Your task to perform on an android device: Find coffee shops on Maps Image 0: 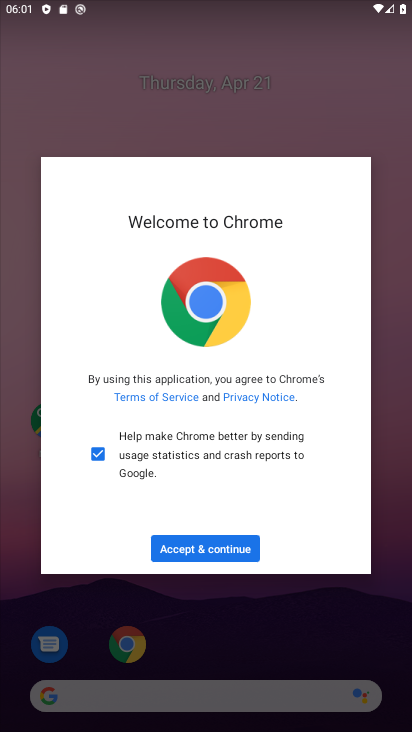
Step 0: click (181, 553)
Your task to perform on an android device: Find coffee shops on Maps Image 1: 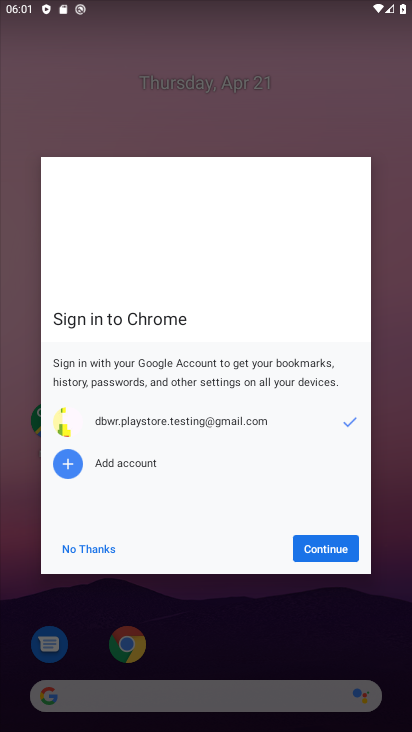
Step 1: click (320, 558)
Your task to perform on an android device: Find coffee shops on Maps Image 2: 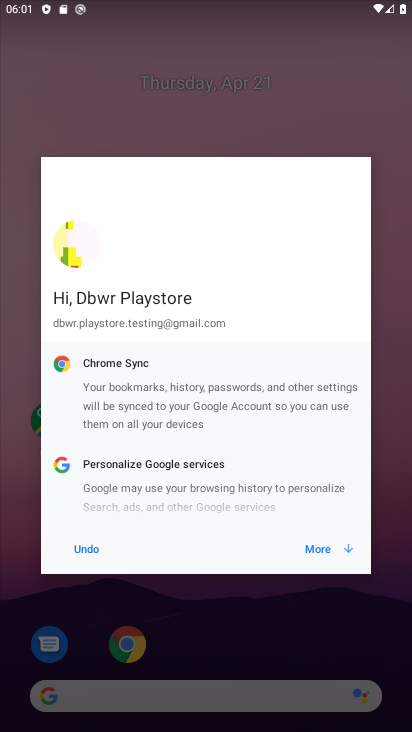
Step 2: press home button
Your task to perform on an android device: Find coffee shops on Maps Image 3: 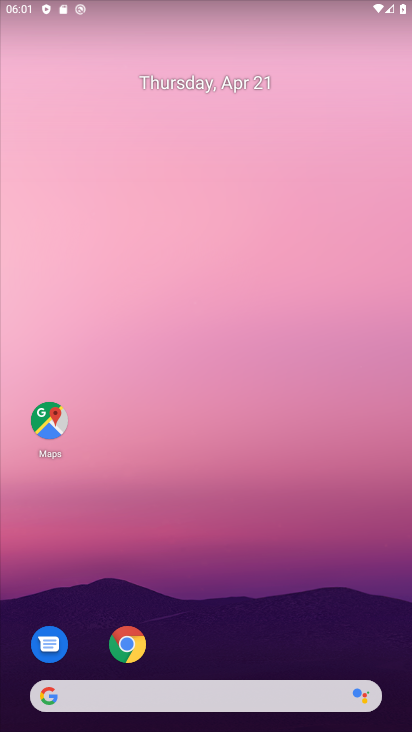
Step 3: press home button
Your task to perform on an android device: Find coffee shops on Maps Image 4: 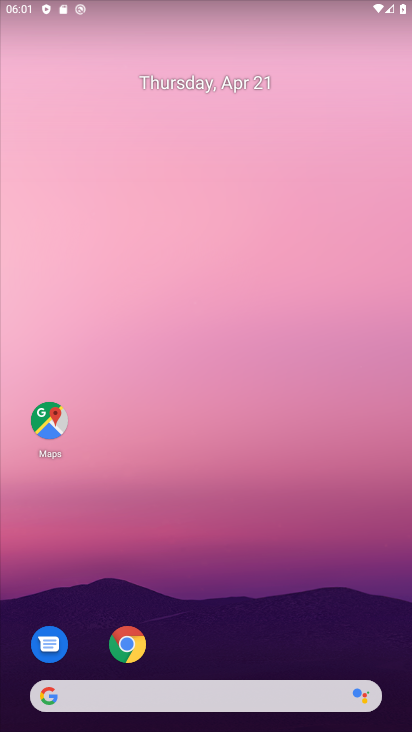
Step 4: press home button
Your task to perform on an android device: Find coffee shops on Maps Image 5: 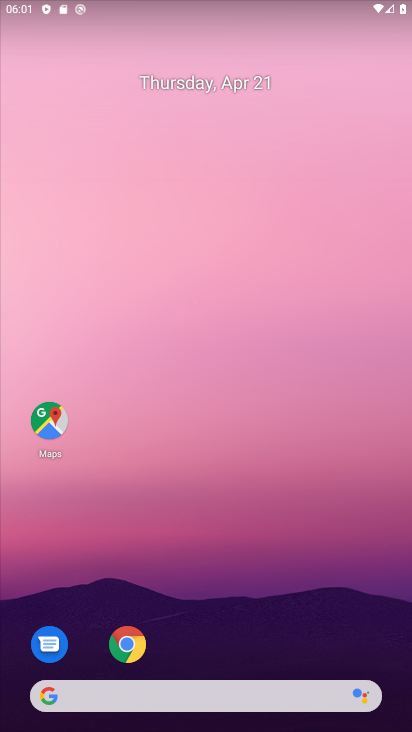
Step 5: click (42, 412)
Your task to perform on an android device: Find coffee shops on Maps Image 6: 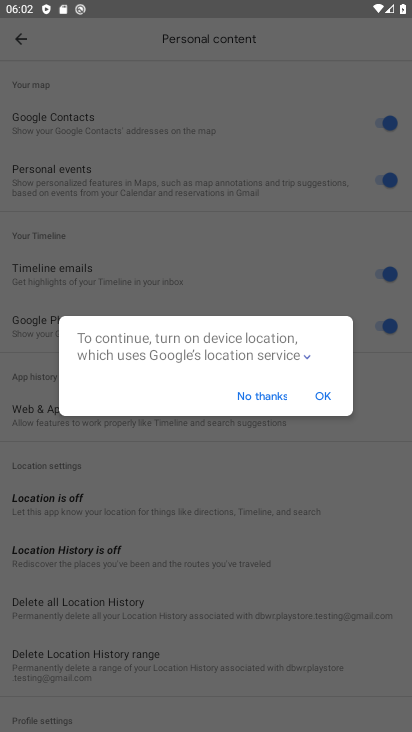
Step 6: click (269, 391)
Your task to perform on an android device: Find coffee shops on Maps Image 7: 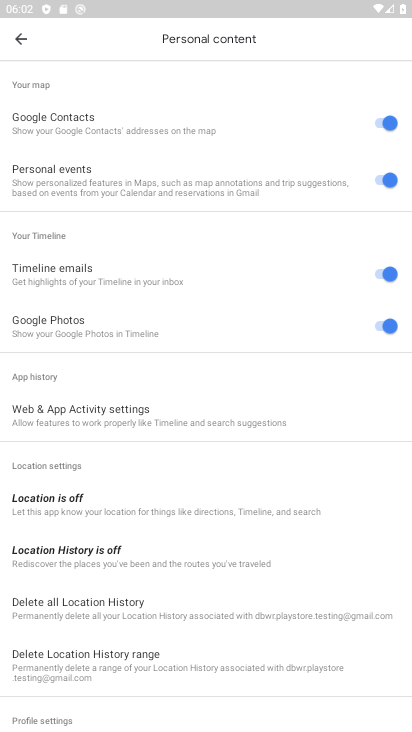
Step 7: click (24, 40)
Your task to perform on an android device: Find coffee shops on Maps Image 8: 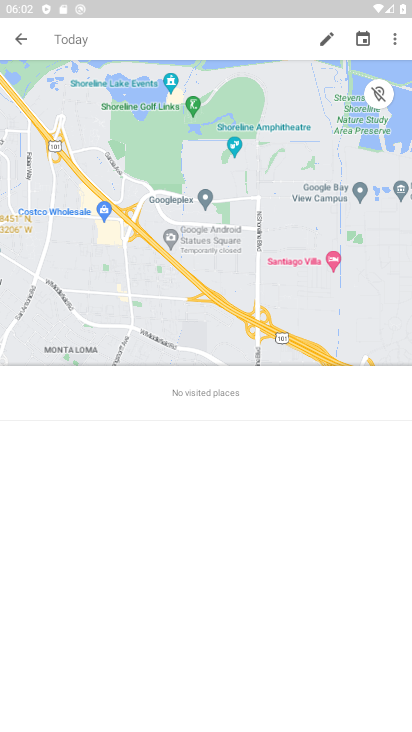
Step 8: click (17, 36)
Your task to perform on an android device: Find coffee shops on Maps Image 9: 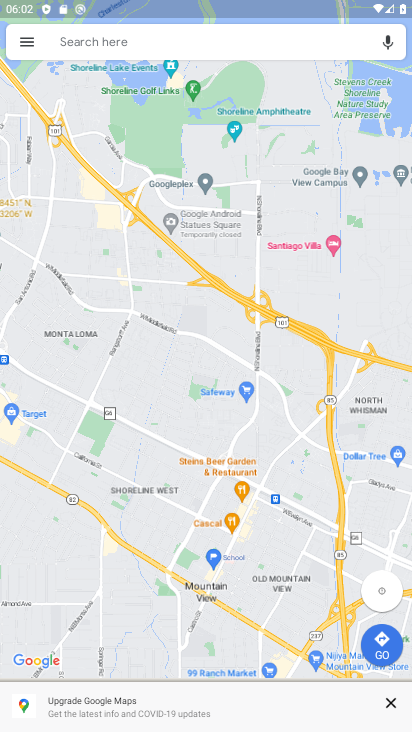
Step 9: click (233, 35)
Your task to perform on an android device: Find coffee shops on Maps Image 10: 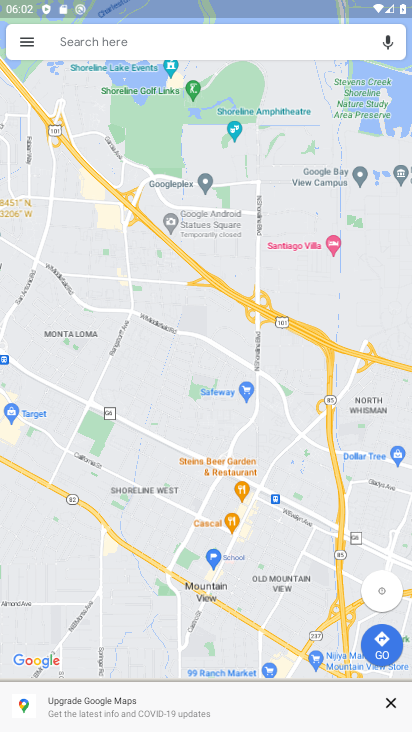
Step 10: click (233, 35)
Your task to perform on an android device: Find coffee shops on Maps Image 11: 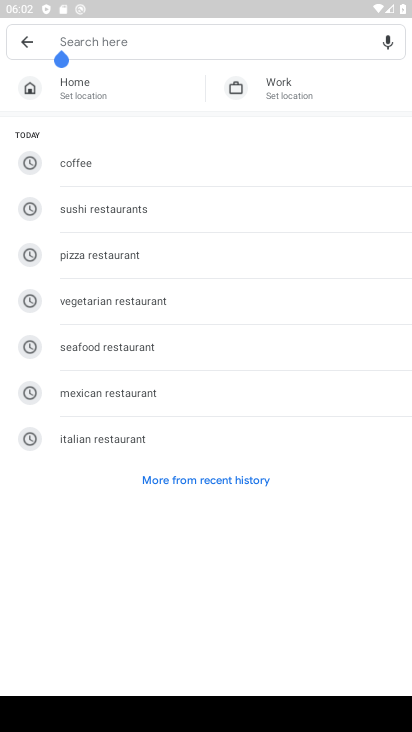
Step 11: click (233, 35)
Your task to perform on an android device: Find coffee shops on Maps Image 12: 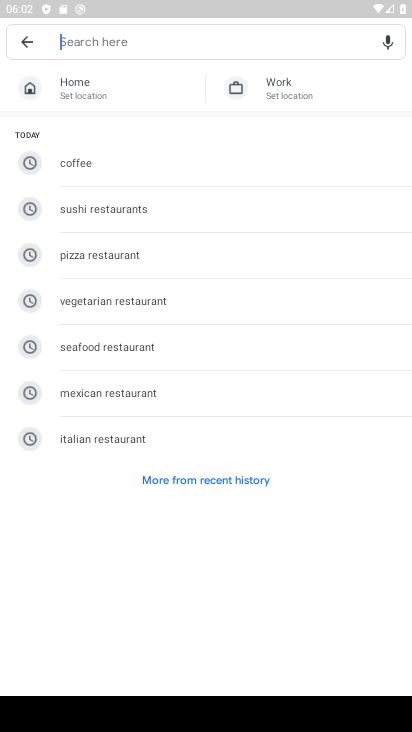
Step 12: type "coffee shops"
Your task to perform on an android device: Find coffee shops on Maps Image 13: 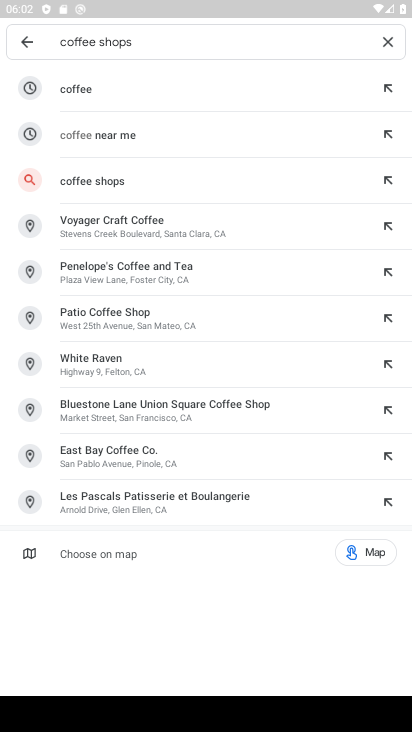
Step 13: click (338, 173)
Your task to perform on an android device: Find coffee shops on Maps Image 14: 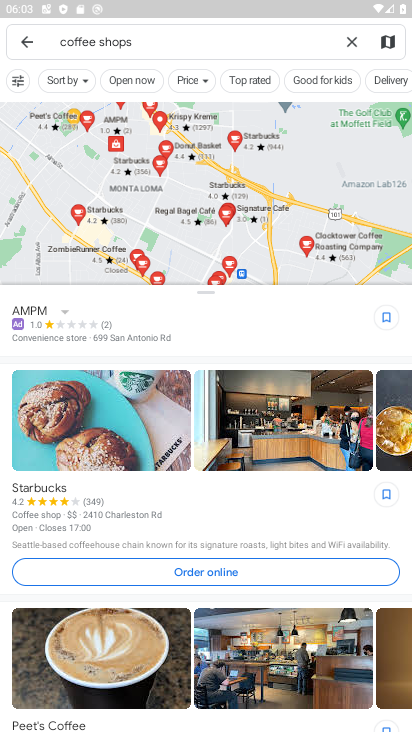
Step 14: task complete